Your task to perform on an android device: Set the phone to "Do not disturb". Image 0: 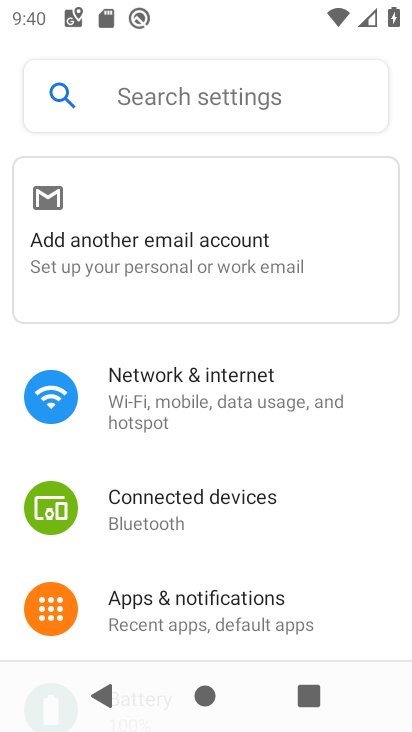
Step 0: drag from (174, 550) to (337, 100)
Your task to perform on an android device: Set the phone to "Do not disturb". Image 1: 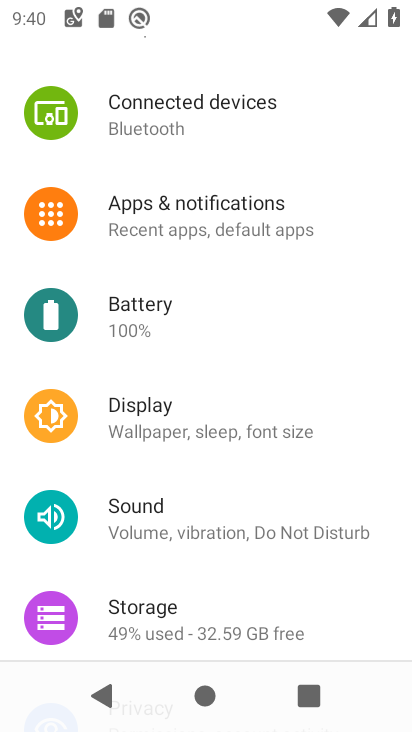
Step 1: click (146, 518)
Your task to perform on an android device: Set the phone to "Do not disturb". Image 2: 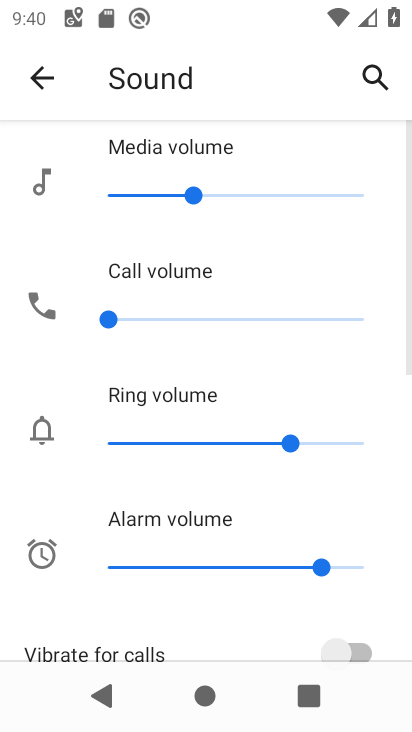
Step 2: drag from (175, 633) to (308, 174)
Your task to perform on an android device: Set the phone to "Do not disturb". Image 3: 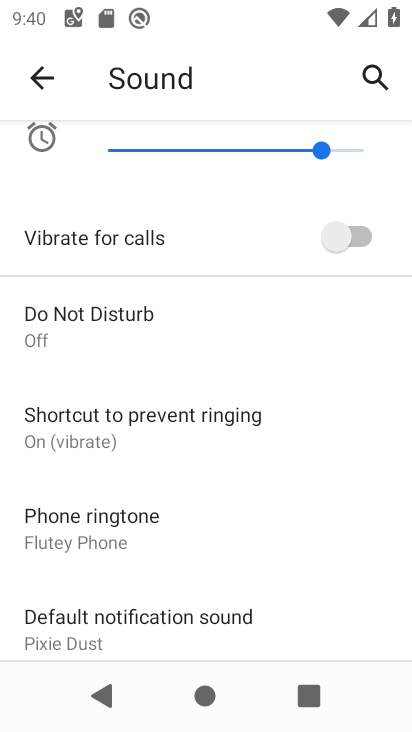
Step 3: click (103, 317)
Your task to perform on an android device: Set the phone to "Do not disturb". Image 4: 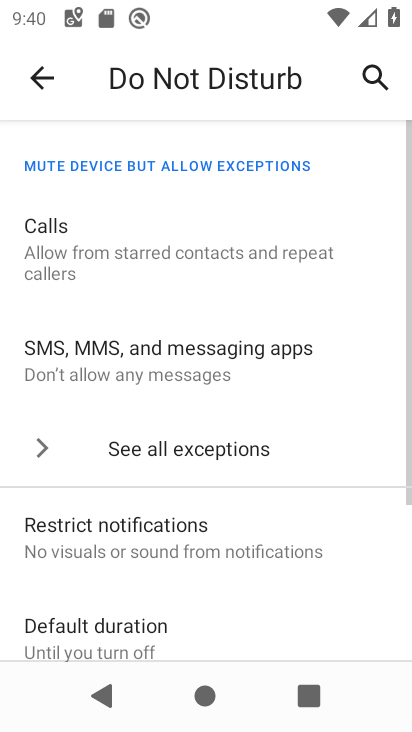
Step 4: drag from (157, 598) to (309, 166)
Your task to perform on an android device: Set the phone to "Do not disturb". Image 5: 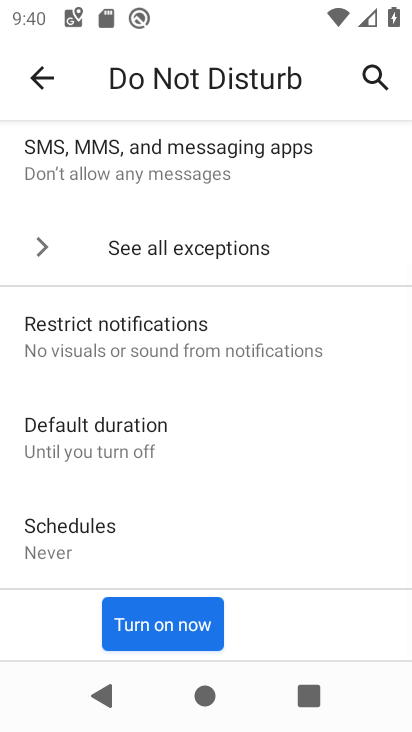
Step 5: click (182, 633)
Your task to perform on an android device: Set the phone to "Do not disturb". Image 6: 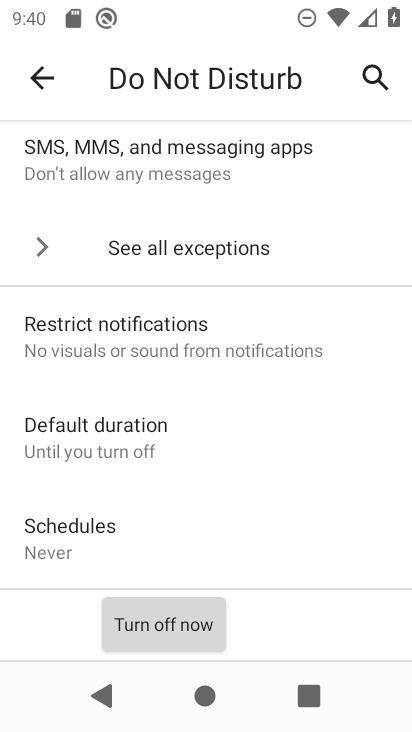
Step 6: task complete